Your task to perform on an android device: change notification settings in the gmail app Image 0: 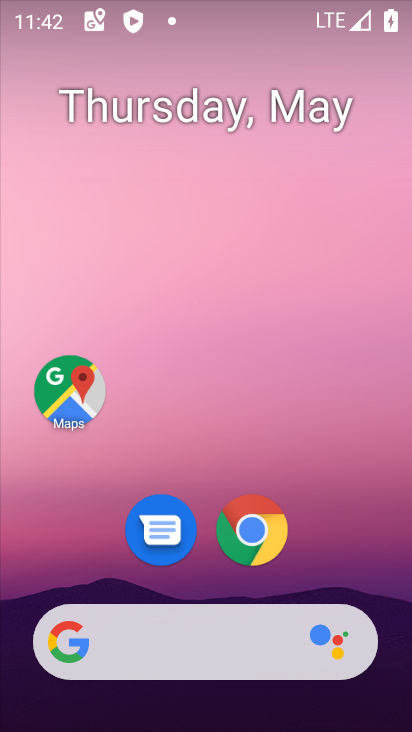
Step 0: drag from (208, 480) to (382, 35)
Your task to perform on an android device: change notification settings in the gmail app Image 1: 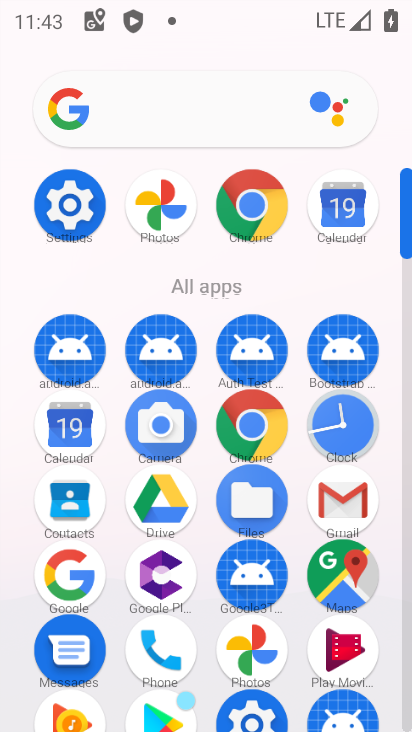
Step 1: click (342, 507)
Your task to perform on an android device: change notification settings in the gmail app Image 2: 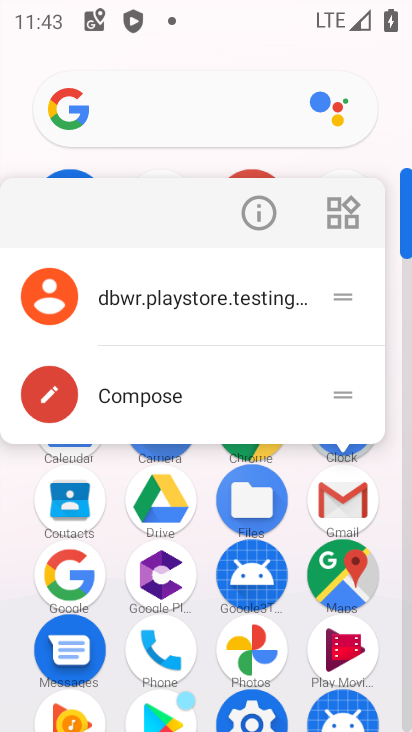
Step 2: click (255, 214)
Your task to perform on an android device: change notification settings in the gmail app Image 3: 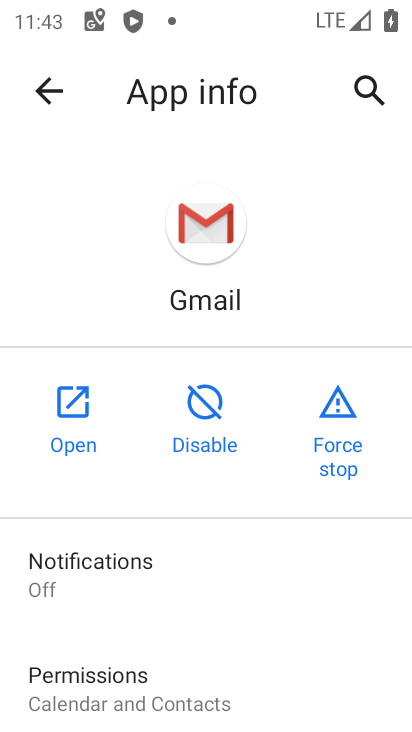
Step 3: click (222, 572)
Your task to perform on an android device: change notification settings in the gmail app Image 4: 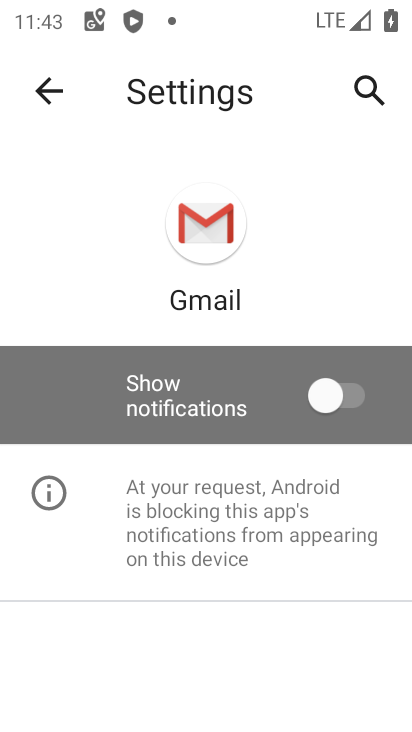
Step 4: click (332, 389)
Your task to perform on an android device: change notification settings in the gmail app Image 5: 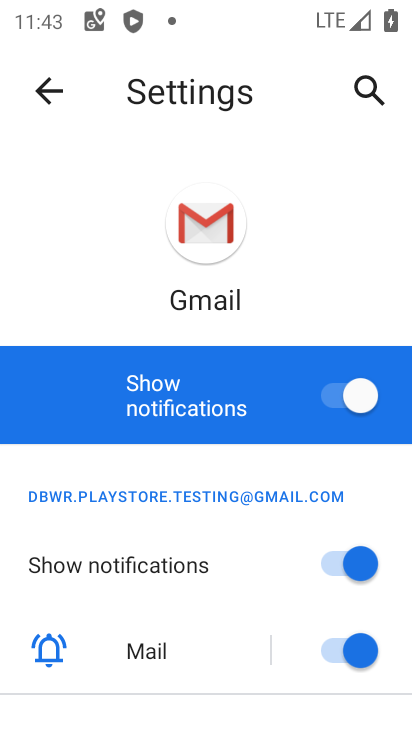
Step 5: click (351, 403)
Your task to perform on an android device: change notification settings in the gmail app Image 6: 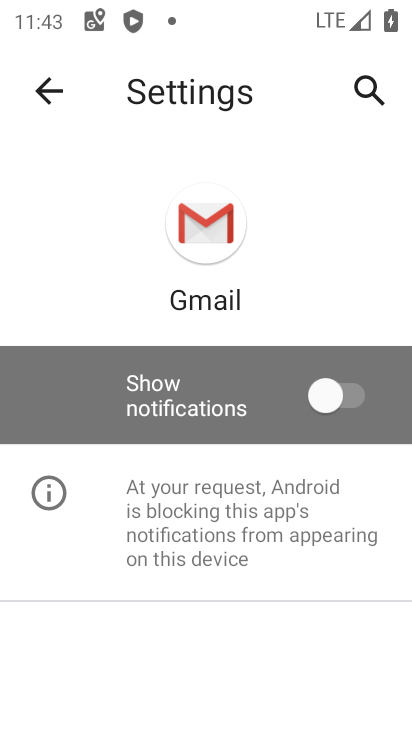
Step 6: task complete